Your task to perform on an android device: add a contact Image 0: 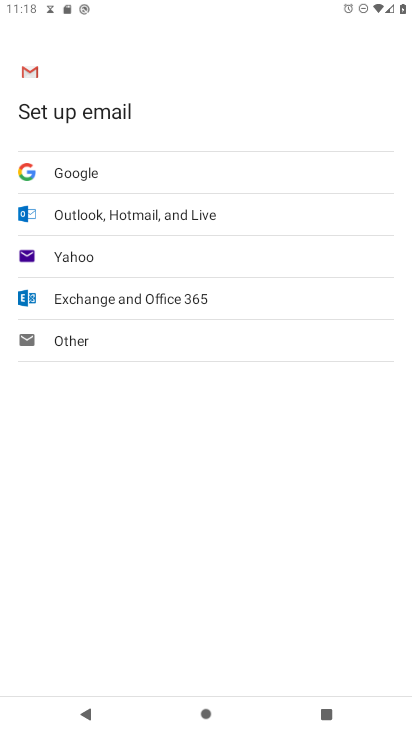
Step 0: press home button
Your task to perform on an android device: add a contact Image 1: 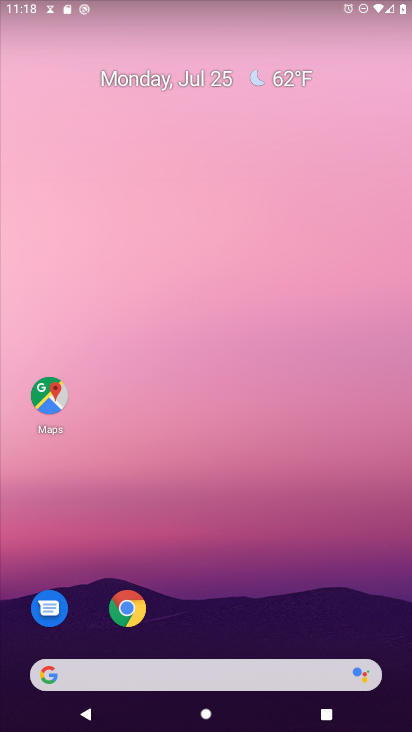
Step 1: drag from (181, 663) to (260, 178)
Your task to perform on an android device: add a contact Image 2: 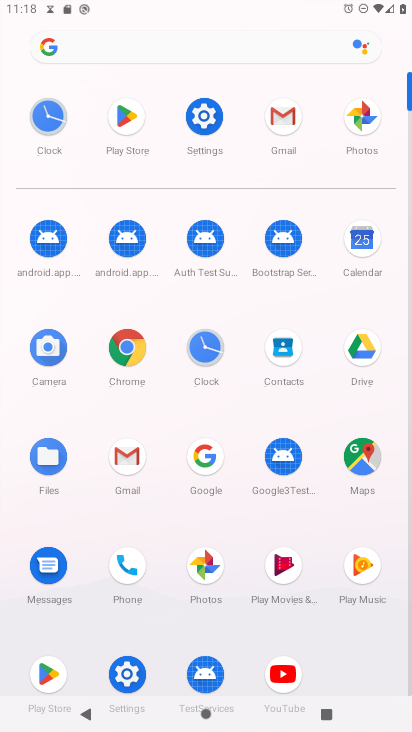
Step 2: click (284, 349)
Your task to perform on an android device: add a contact Image 3: 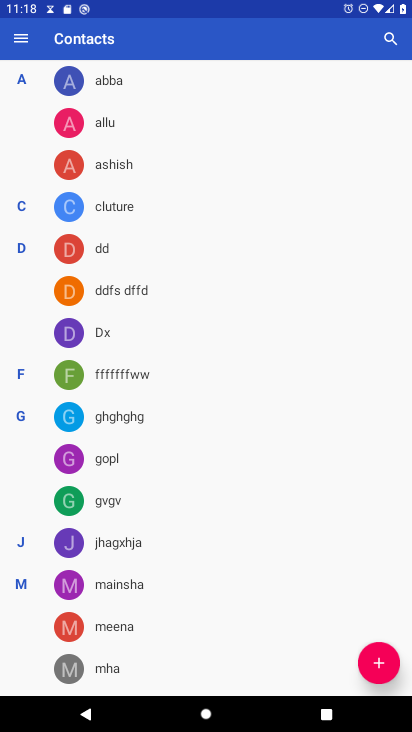
Step 3: click (379, 661)
Your task to perform on an android device: add a contact Image 4: 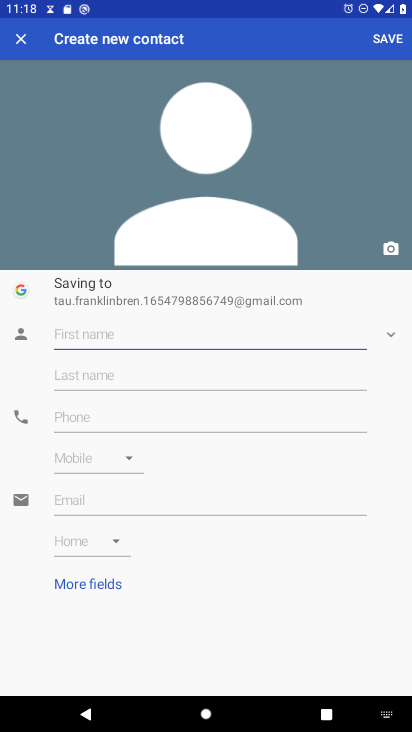
Step 4: click (193, 335)
Your task to perform on an android device: add a contact Image 5: 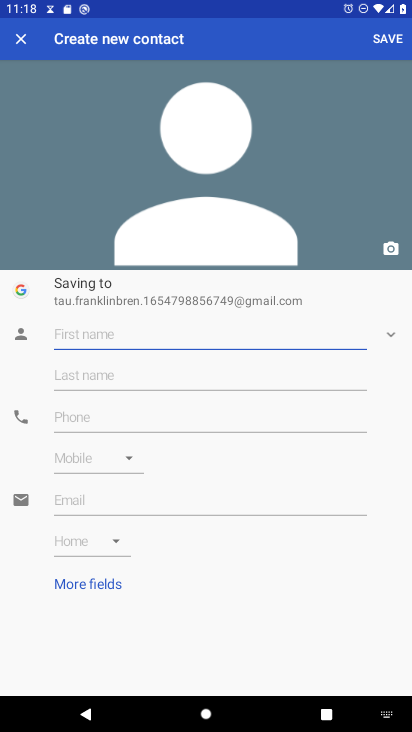
Step 5: type "Sukhwinder"
Your task to perform on an android device: add a contact Image 6: 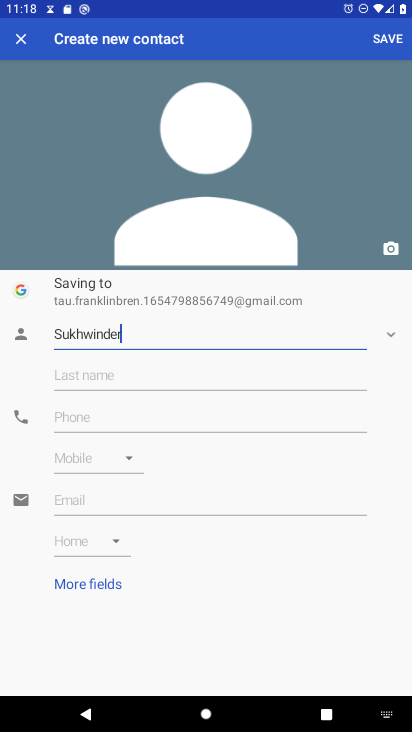
Step 6: click (245, 371)
Your task to perform on an android device: add a contact Image 7: 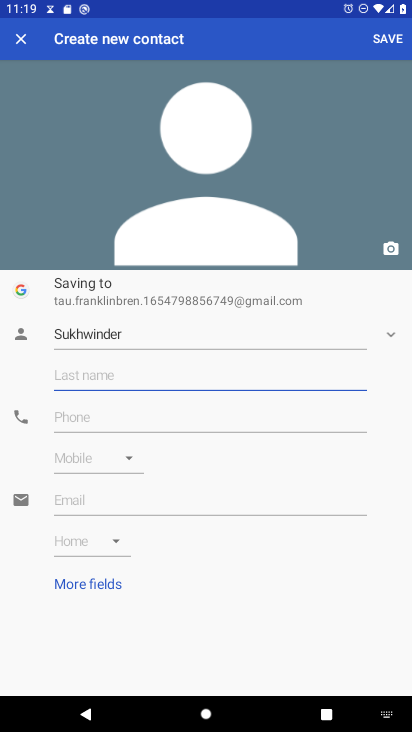
Step 7: type "Singh"
Your task to perform on an android device: add a contact Image 8: 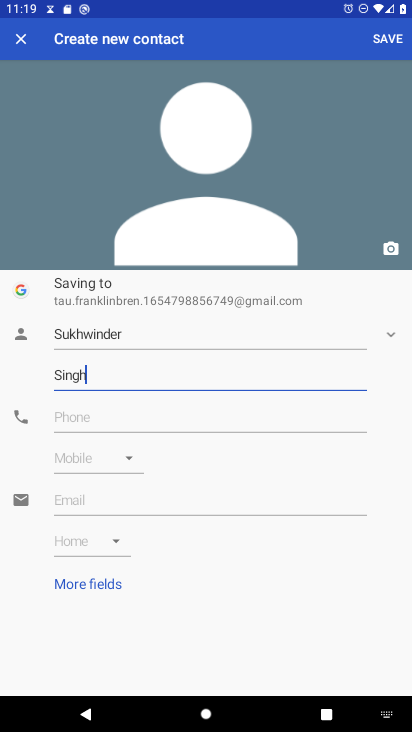
Step 8: click (133, 410)
Your task to perform on an android device: add a contact Image 9: 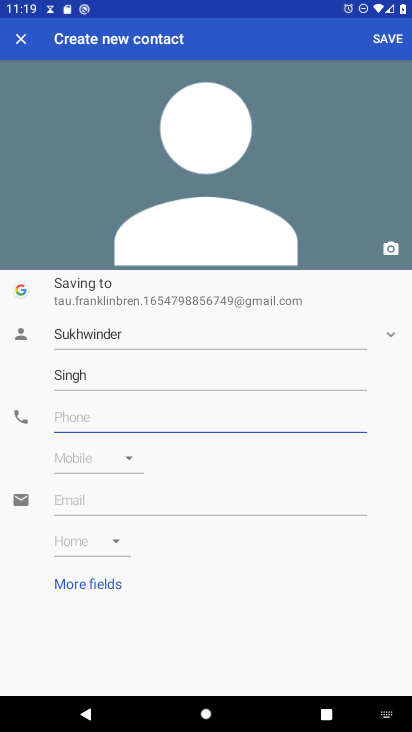
Step 9: type "0987654321"
Your task to perform on an android device: add a contact Image 10: 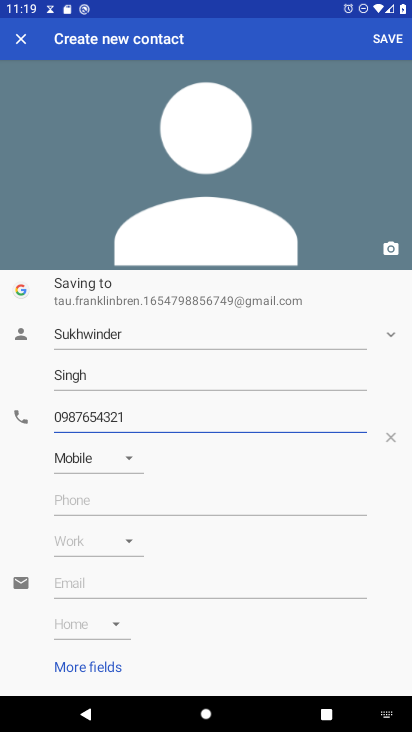
Step 10: click (389, 39)
Your task to perform on an android device: add a contact Image 11: 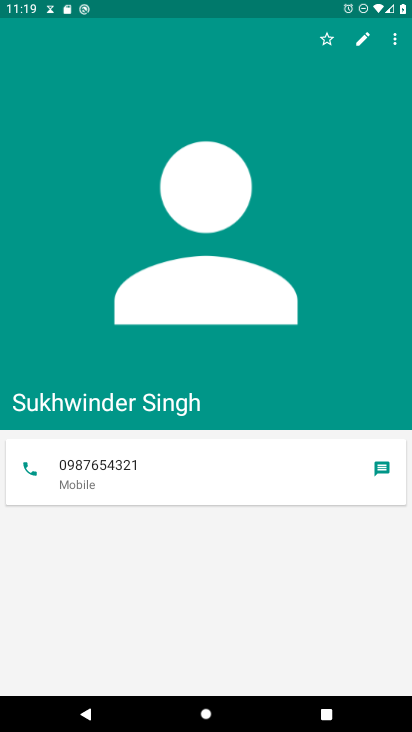
Step 11: task complete